Your task to perform on an android device: allow cookies in the chrome app Image 0: 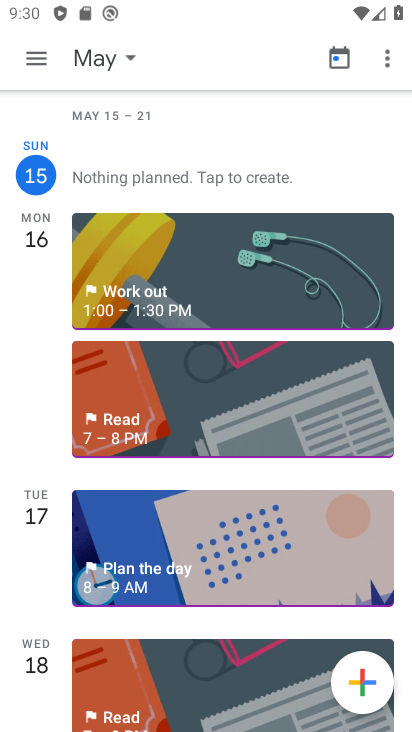
Step 0: press home button
Your task to perform on an android device: allow cookies in the chrome app Image 1: 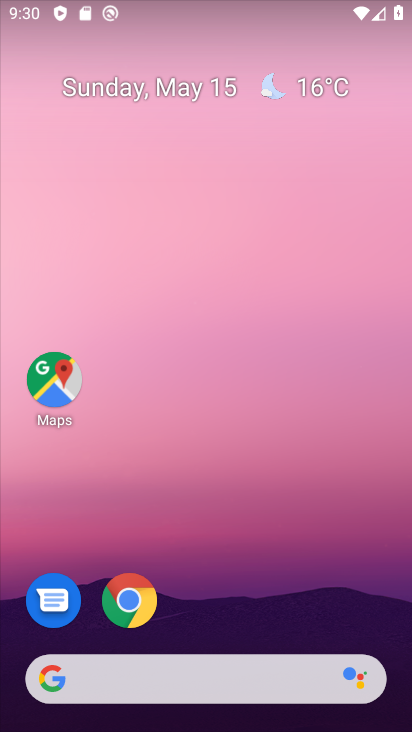
Step 1: click (136, 598)
Your task to perform on an android device: allow cookies in the chrome app Image 2: 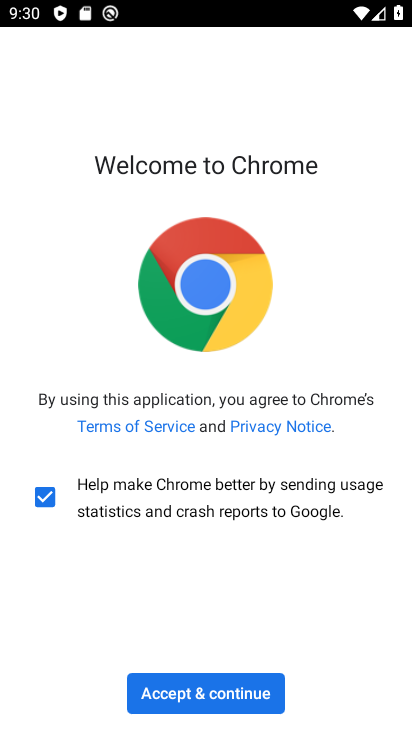
Step 2: click (181, 680)
Your task to perform on an android device: allow cookies in the chrome app Image 3: 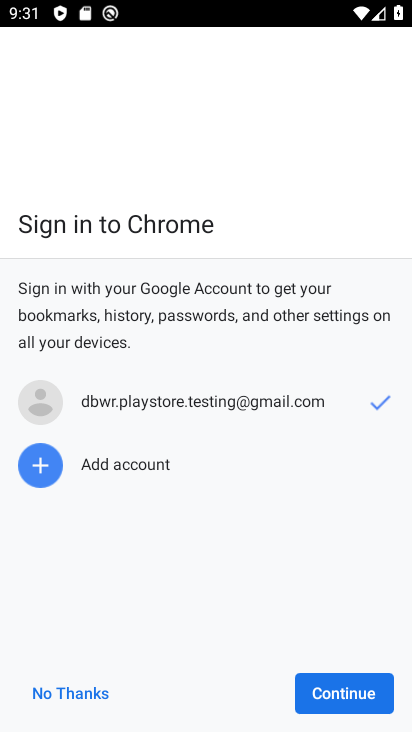
Step 3: click (337, 696)
Your task to perform on an android device: allow cookies in the chrome app Image 4: 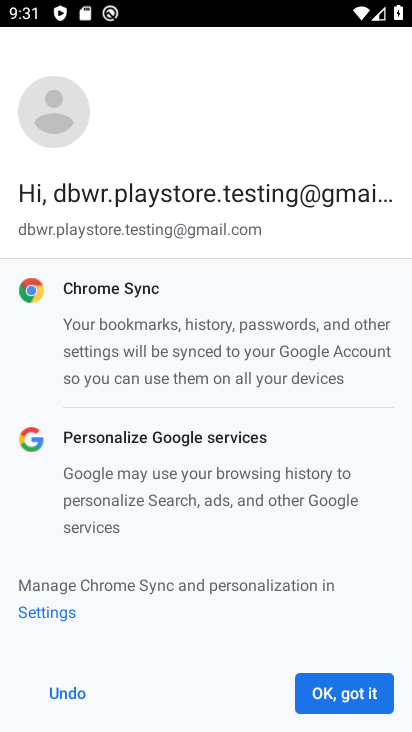
Step 4: click (336, 696)
Your task to perform on an android device: allow cookies in the chrome app Image 5: 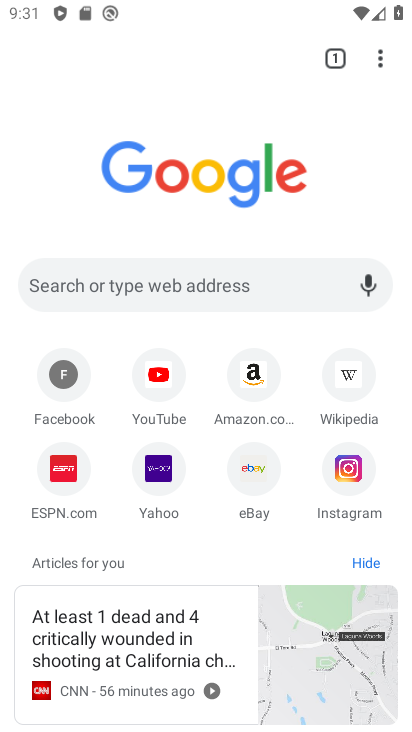
Step 5: click (372, 55)
Your task to perform on an android device: allow cookies in the chrome app Image 6: 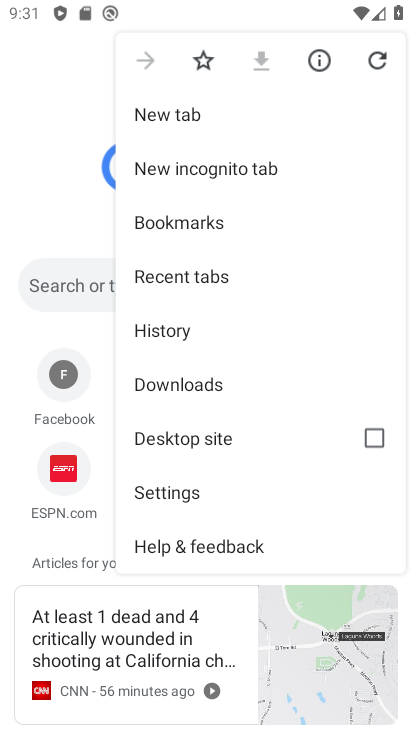
Step 6: click (161, 497)
Your task to perform on an android device: allow cookies in the chrome app Image 7: 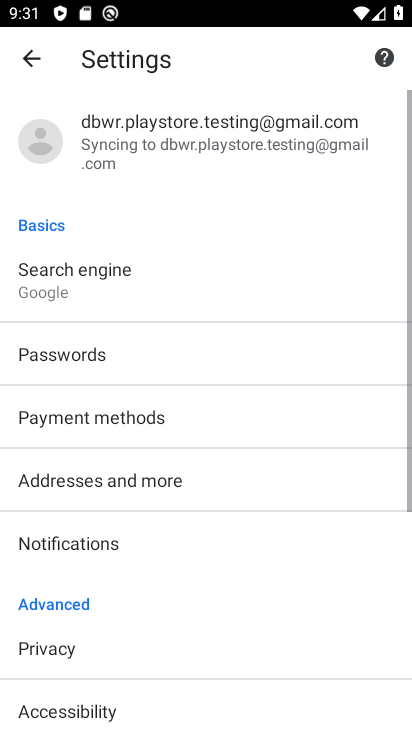
Step 7: drag from (168, 601) to (172, 153)
Your task to perform on an android device: allow cookies in the chrome app Image 8: 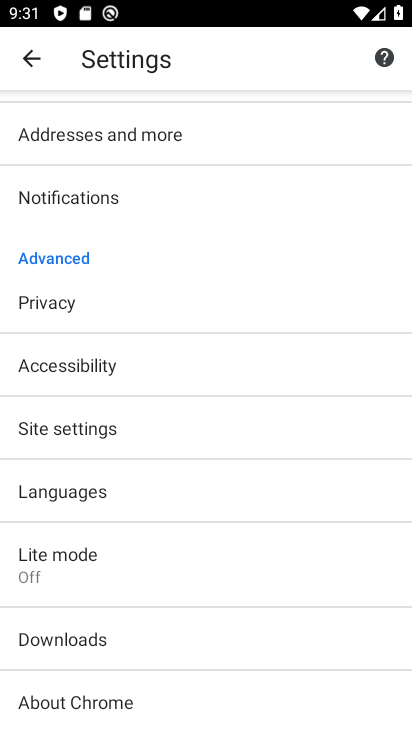
Step 8: click (49, 436)
Your task to perform on an android device: allow cookies in the chrome app Image 9: 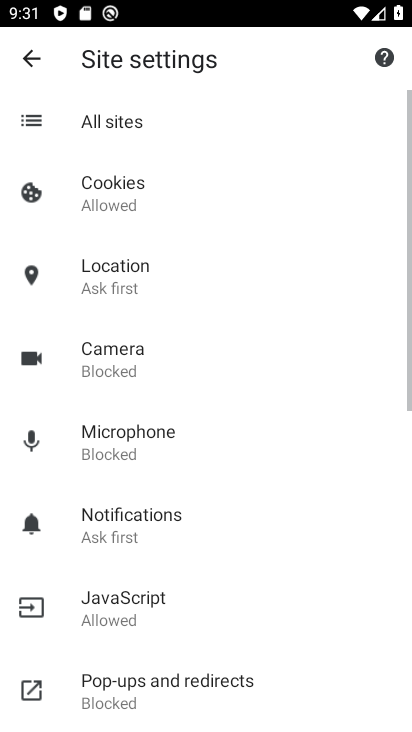
Step 9: click (118, 192)
Your task to perform on an android device: allow cookies in the chrome app Image 10: 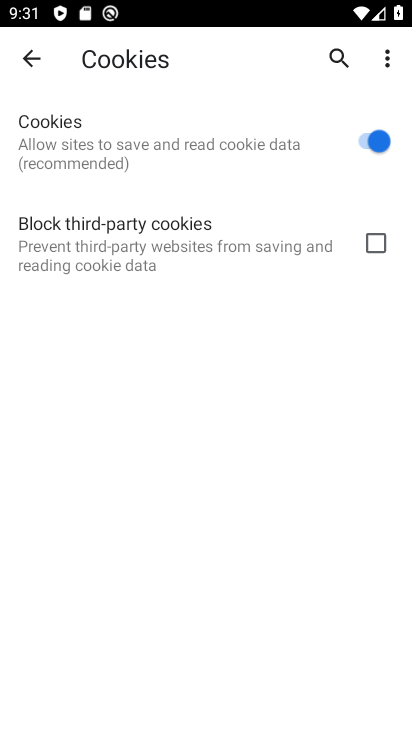
Step 10: task complete